Your task to perform on an android device: open device folders in google photos Image 0: 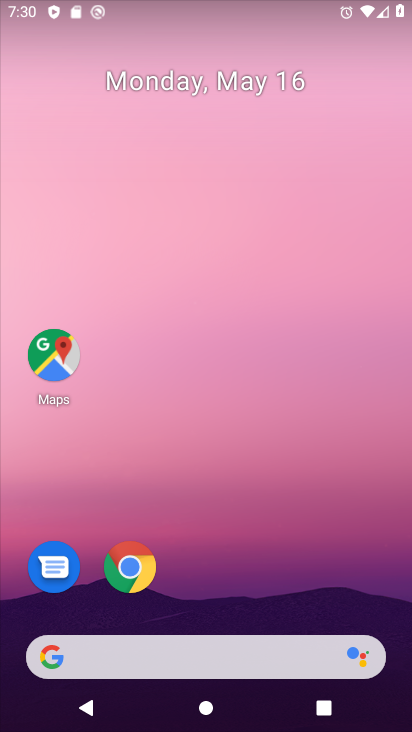
Step 0: drag from (140, 639) to (147, 328)
Your task to perform on an android device: open device folders in google photos Image 1: 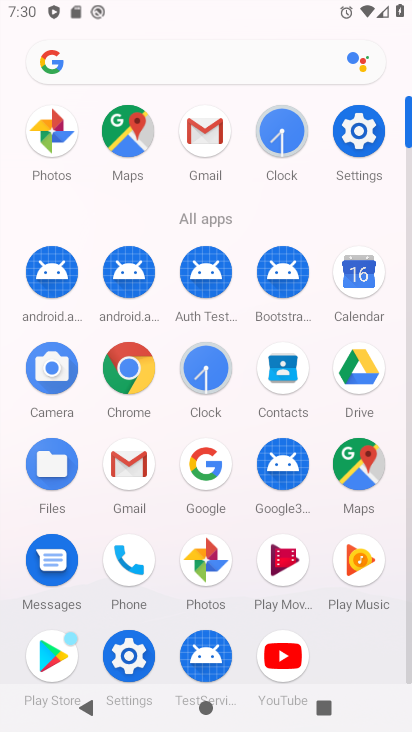
Step 1: click (58, 127)
Your task to perform on an android device: open device folders in google photos Image 2: 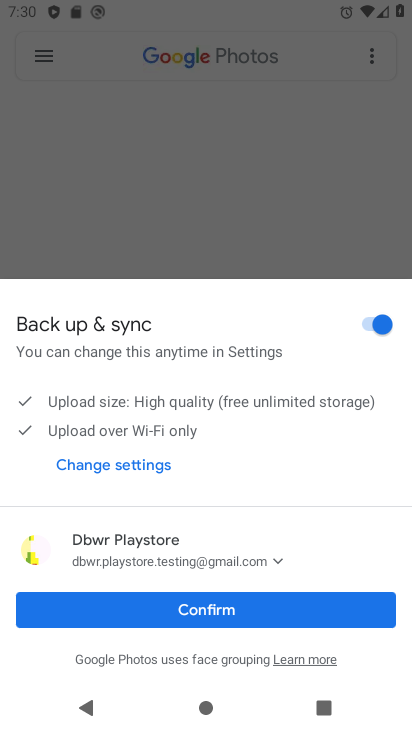
Step 2: click (188, 609)
Your task to perform on an android device: open device folders in google photos Image 3: 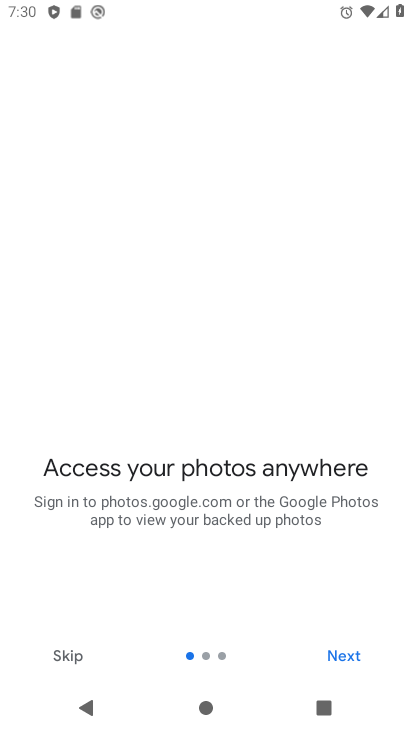
Step 3: click (349, 654)
Your task to perform on an android device: open device folders in google photos Image 4: 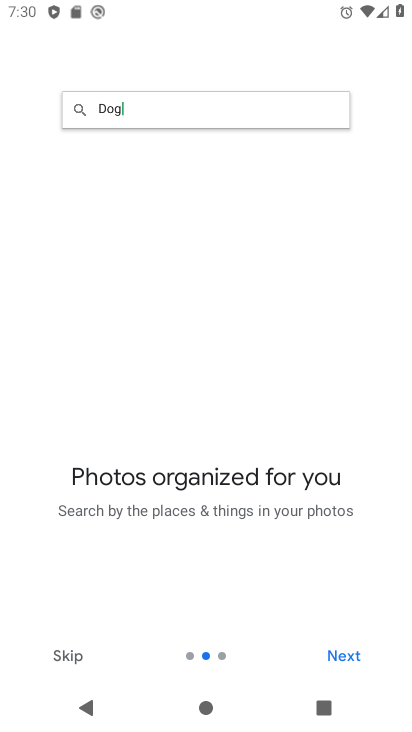
Step 4: click (349, 654)
Your task to perform on an android device: open device folders in google photos Image 5: 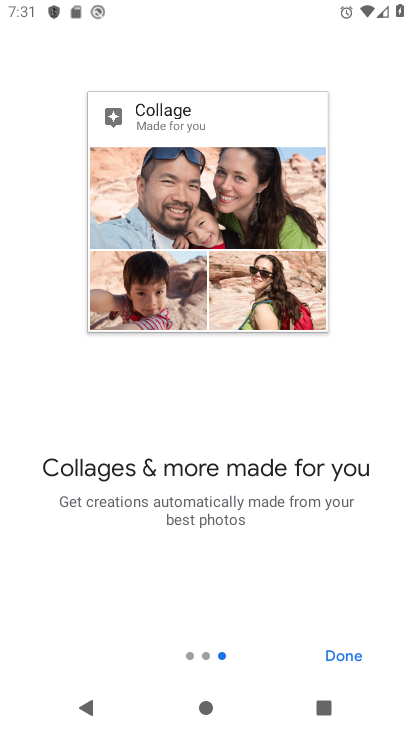
Step 5: click (328, 653)
Your task to perform on an android device: open device folders in google photos Image 6: 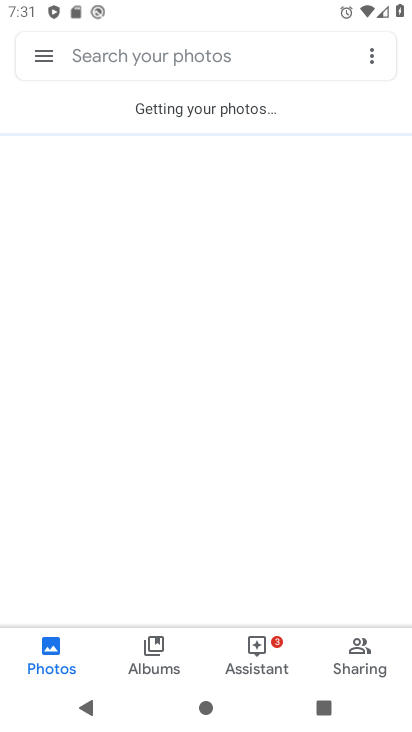
Step 6: click (40, 54)
Your task to perform on an android device: open device folders in google photos Image 7: 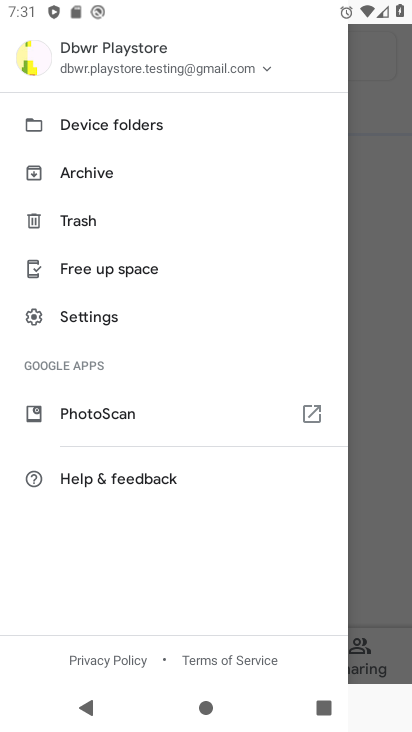
Step 7: click (85, 121)
Your task to perform on an android device: open device folders in google photos Image 8: 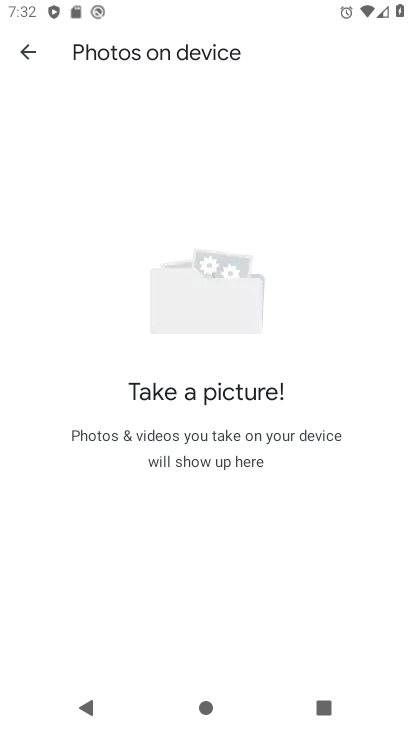
Step 8: task complete